Your task to perform on an android device: Go to internet settings Image 0: 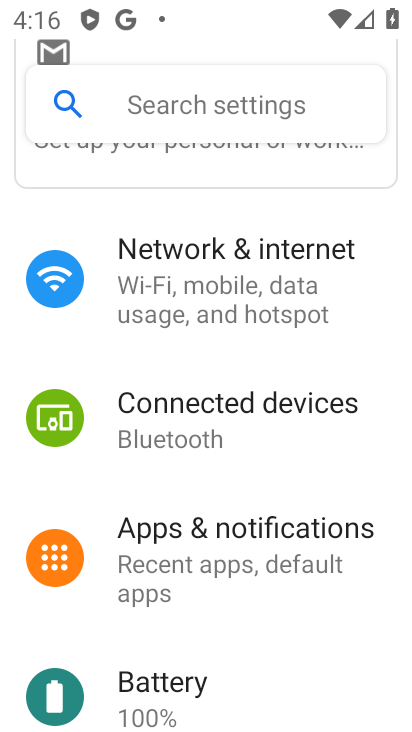
Step 0: drag from (351, 630) to (347, 475)
Your task to perform on an android device: Go to internet settings Image 1: 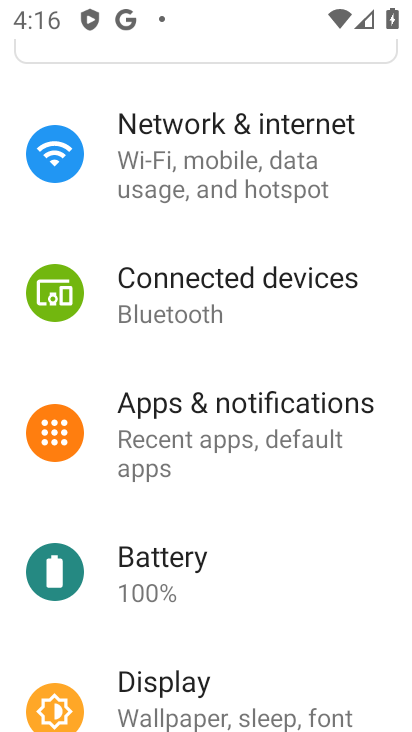
Step 1: drag from (341, 627) to (351, 459)
Your task to perform on an android device: Go to internet settings Image 2: 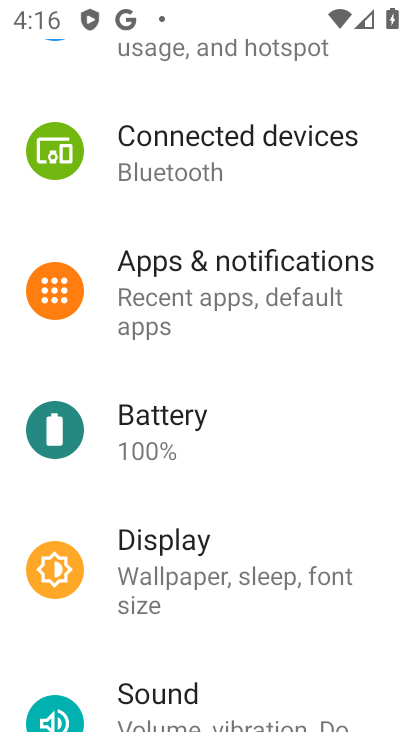
Step 2: drag from (340, 656) to (340, 486)
Your task to perform on an android device: Go to internet settings Image 3: 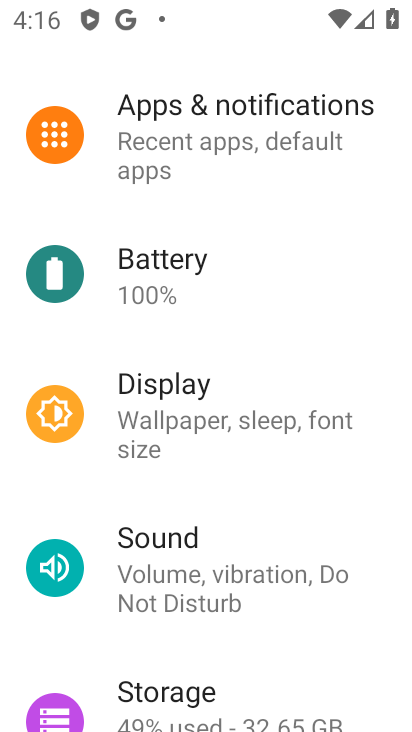
Step 3: drag from (346, 631) to (363, 455)
Your task to perform on an android device: Go to internet settings Image 4: 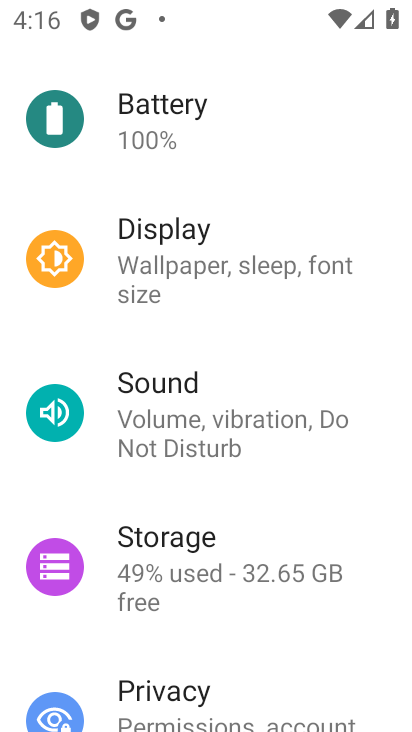
Step 4: drag from (345, 610) to (354, 353)
Your task to perform on an android device: Go to internet settings Image 5: 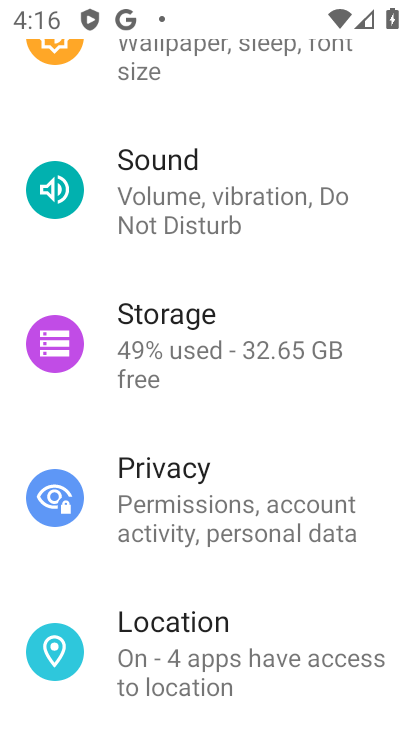
Step 5: drag from (364, 581) to (368, 443)
Your task to perform on an android device: Go to internet settings Image 6: 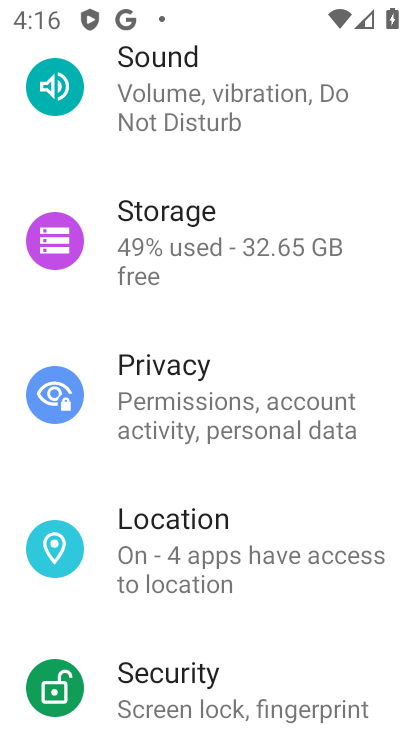
Step 6: drag from (337, 629) to (334, 471)
Your task to perform on an android device: Go to internet settings Image 7: 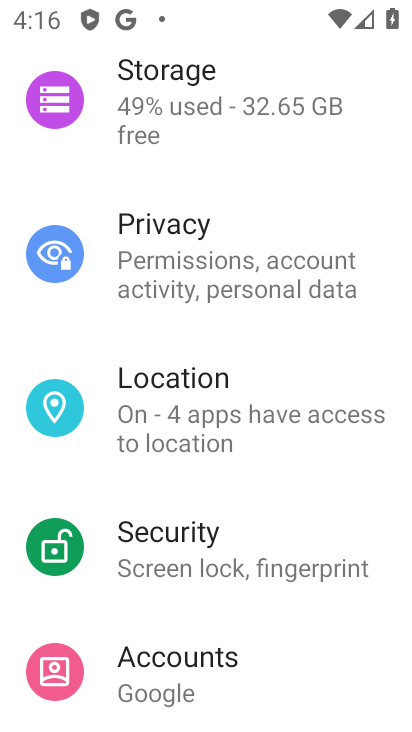
Step 7: drag from (339, 654) to (347, 446)
Your task to perform on an android device: Go to internet settings Image 8: 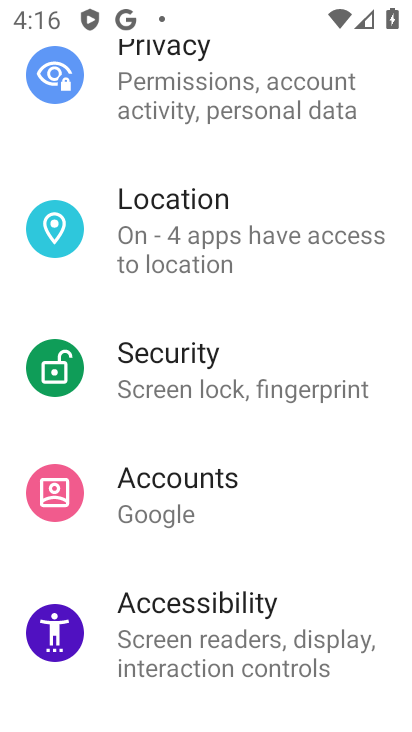
Step 8: drag from (313, 569) to (308, 359)
Your task to perform on an android device: Go to internet settings Image 9: 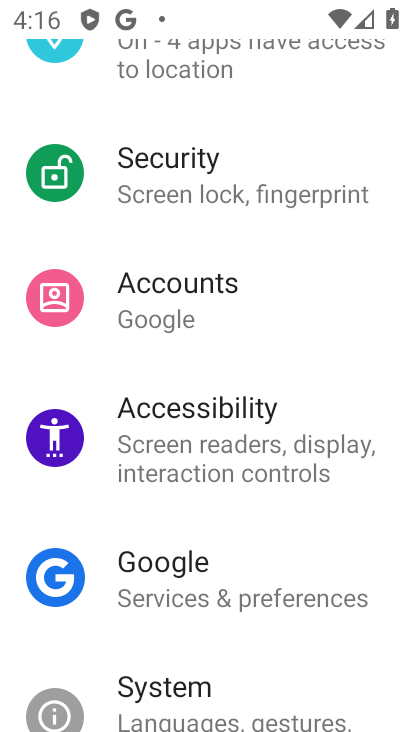
Step 9: drag from (324, 523) to (333, 309)
Your task to perform on an android device: Go to internet settings Image 10: 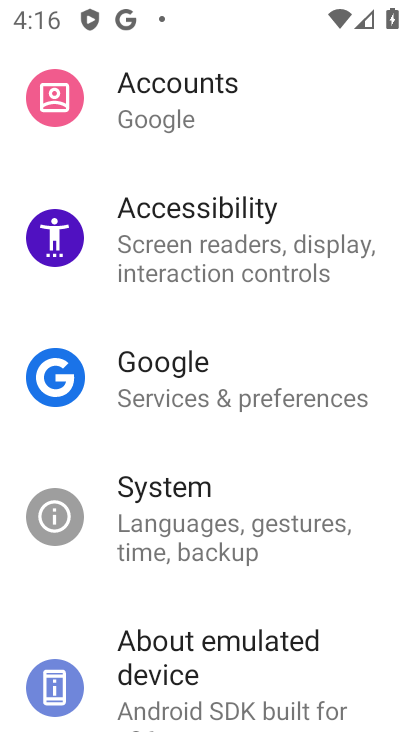
Step 10: drag from (312, 514) to (317, 363)
Your task to perform on an android device: Go to internet settings Image 11: 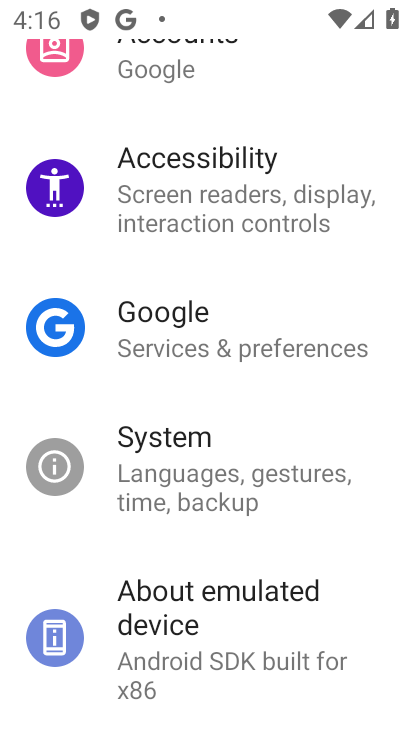
Step 11: drag from (329, 281) to (334, 414)
Your task to perform on an android device: Go to internet settings Image 12: 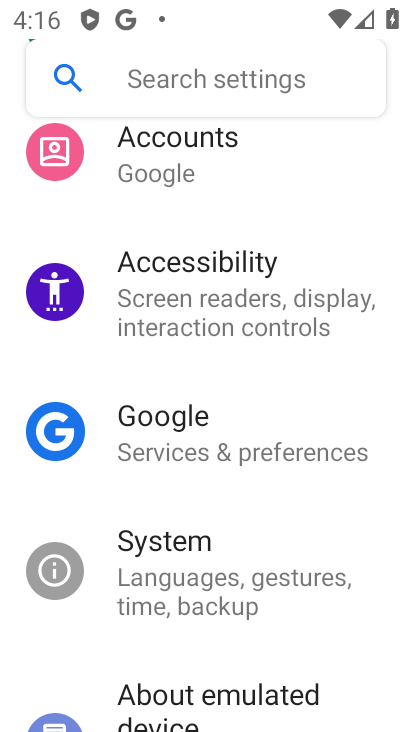
Step 12: drag from (364, 230) to (369, 358)
Your task to perform on an android device: Go to internet settings Image 13: 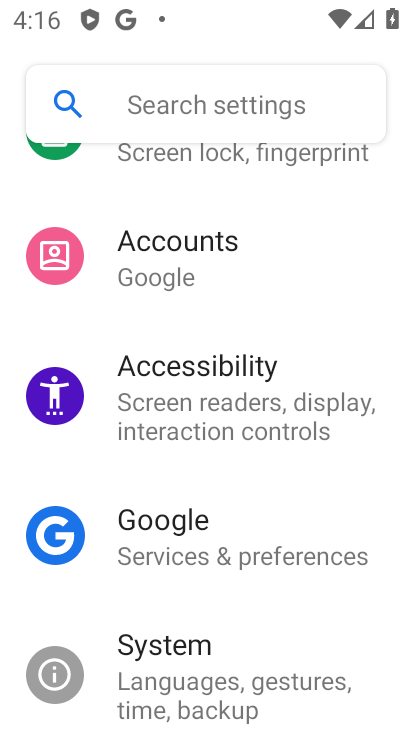
Step 13: drag from (356, 204) to (354, 363)
Your task to perform on an android device: Go to internet settings Image 14: 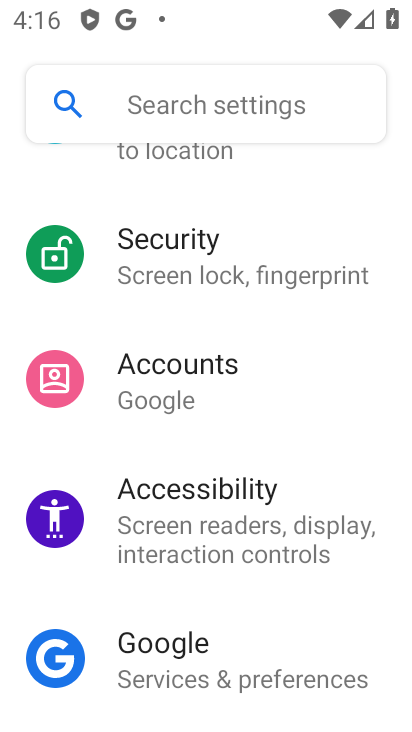
Step 14: drag from (358, 225) to (347, 371)
Your task to perform on an android device: Go to internet settings Image 15: 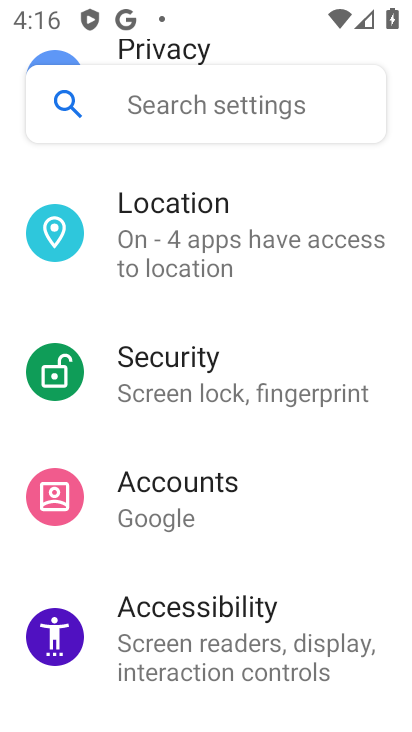
Step 15: drag from (349, 197) to (344, 366)
Your task to perform on an android device: Go to internet settings Image 16: 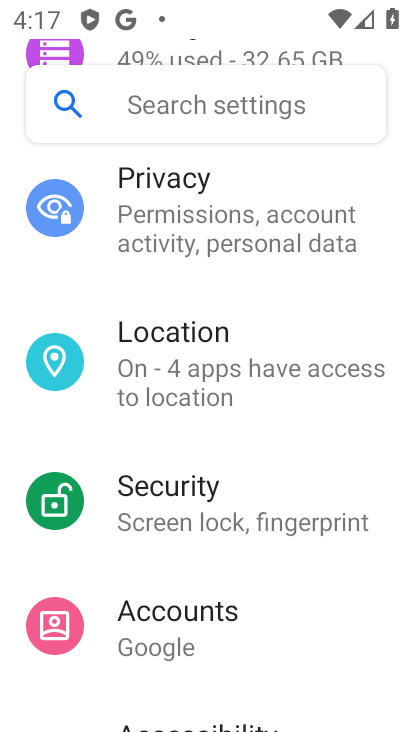
Step 16: drag from (355, 216) to (373, 376)
Your task to perform on an android device: Go to internet settings Image 17: 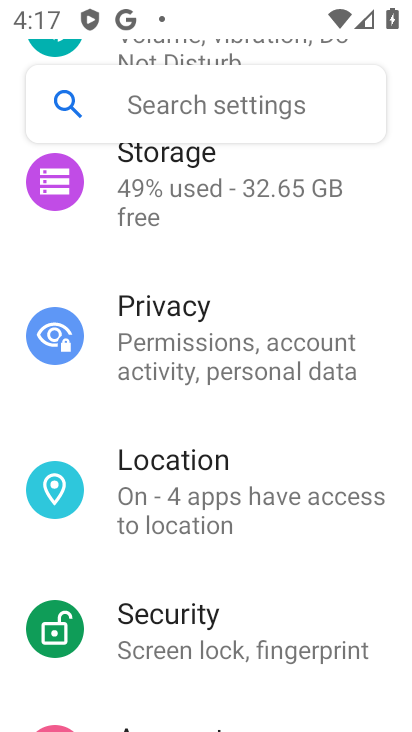
Step 17: drag from (375, 206) to (366, 329)
Your task to perform on an android device: Go to internet settings Image 18: 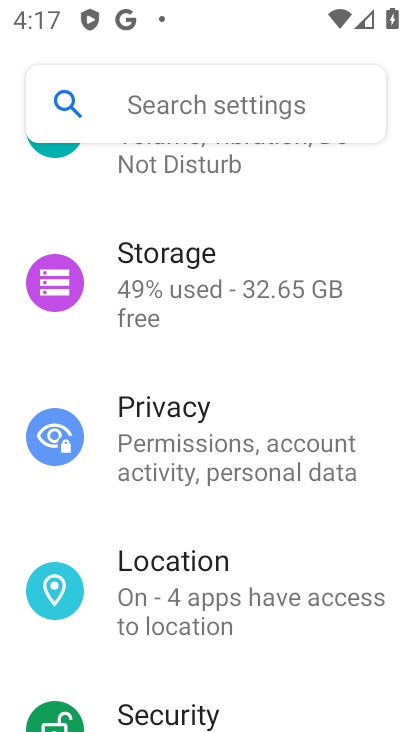
Step 18: drag from (362, 190) to (360, 322)
Your task to perform on an android device: Go to internet settings Image 19: 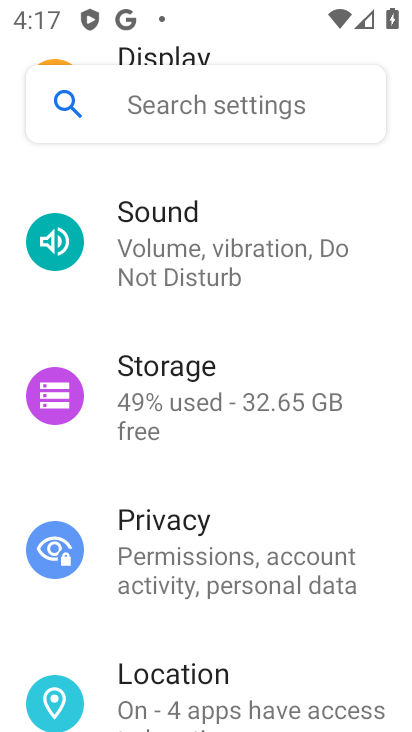
Step 19: drag from (348, 180) to (343, 310)
Your task to perform on an android device: Go to internet settings Image 20: 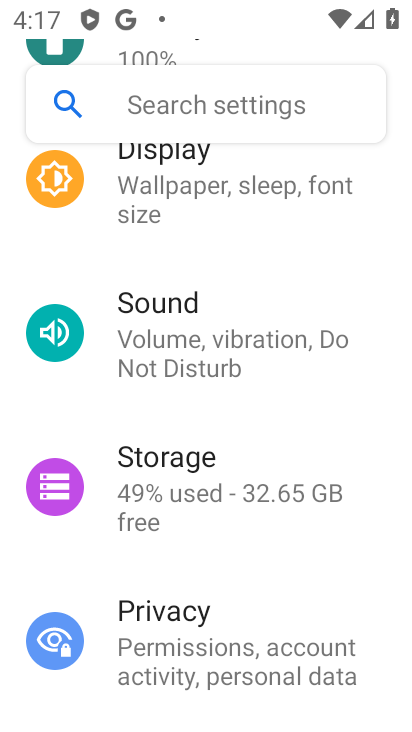
Step 20: drag from (371, 166) to (359, 318)
Your task to perform on an android device: Go to internet settings Image 21: 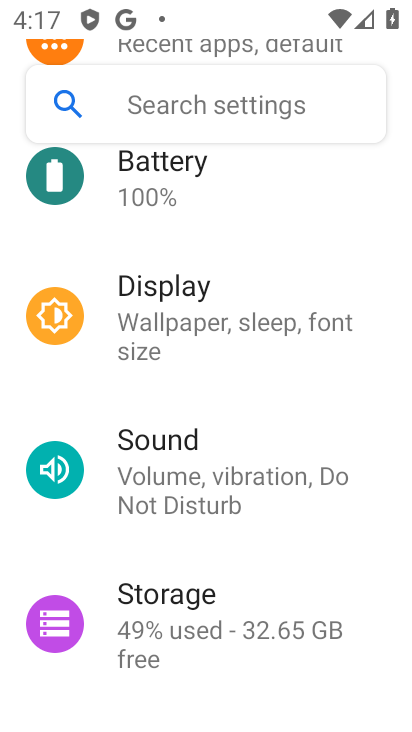
Step 21: drag from (339, 189) to (331, 314)
Your task to perform on an android device: Go to internet settings Image 22: 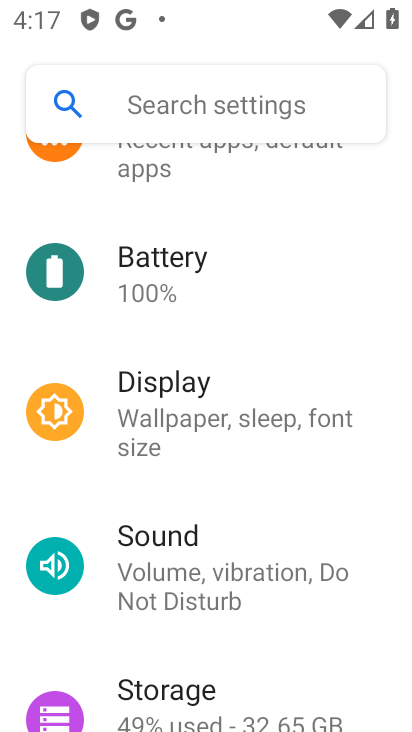
Step 22: drag from (336, 179) to (326, 309)
Your task to perform on an android device: Go to internet settings Image 23: 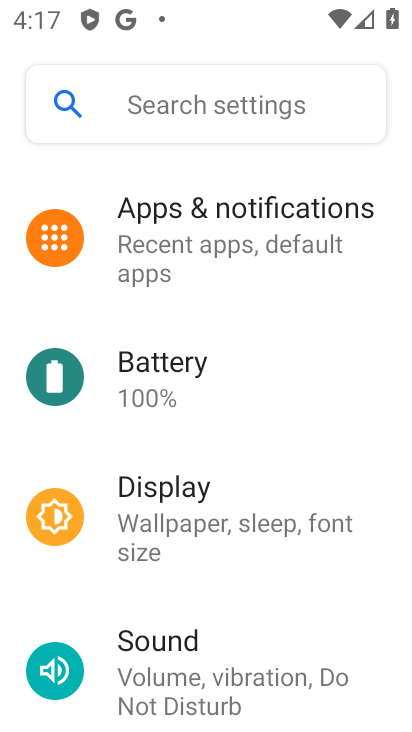
Step 23: drag from (328, 188) to (316, 350)
Your task to perform on an android device: Go to internet settings Image 24: 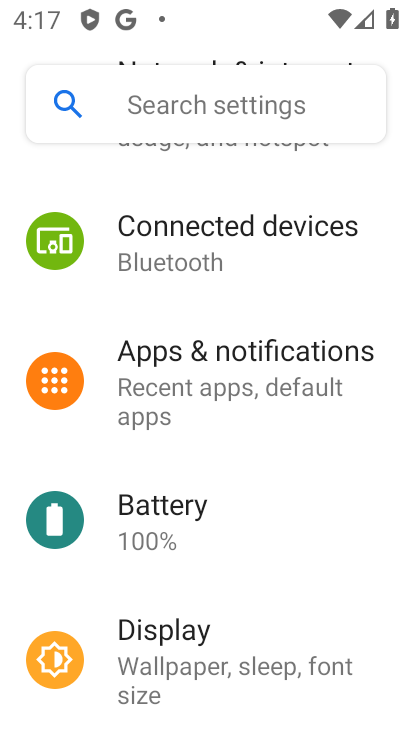
Step 24: drag from (339, 185) to (333, 311)
Your task to perform on an android device: Go to internet settings Image 25: 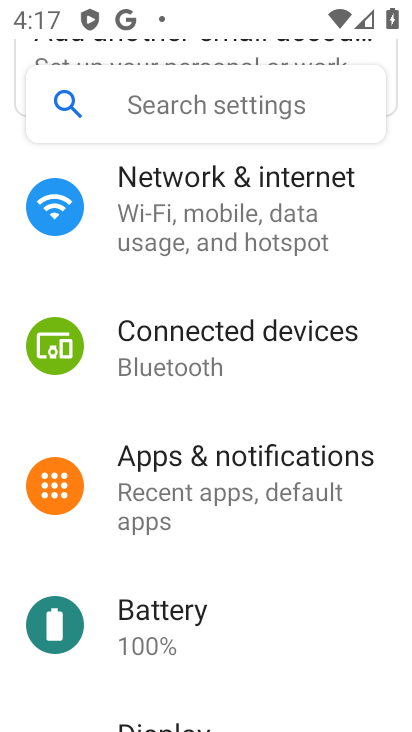
Step 25: click (261, 203)
Your task to perform on an android device: Go to internet settings Image 26: 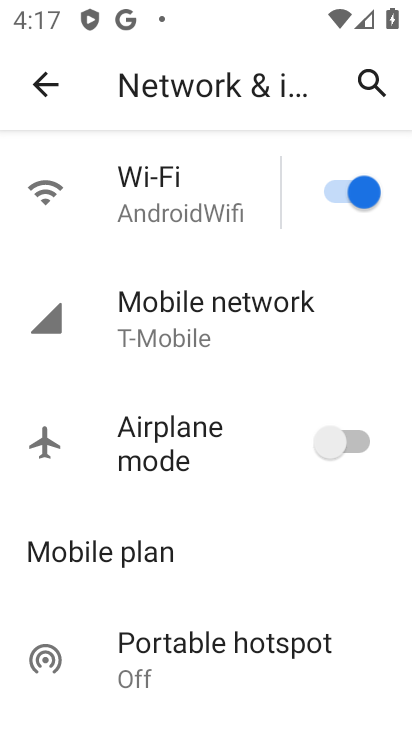
Step 26: task complete